Your task to perform on an android device: Open display settings Image 0: 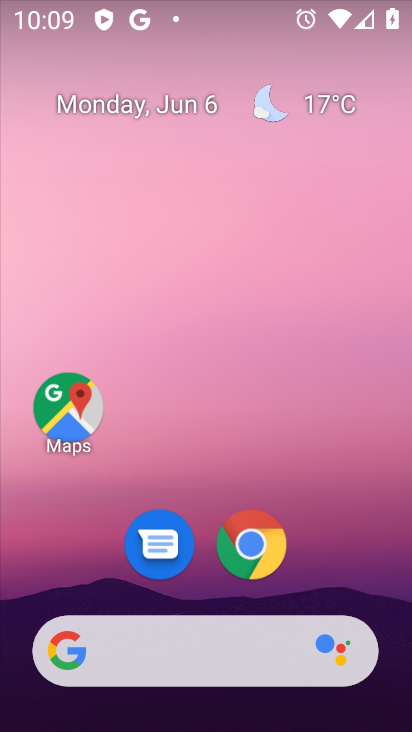
Step 0: drag from (132, 278) to (180, 101)
Your task to perform on an android device: Open display settings Image 1: 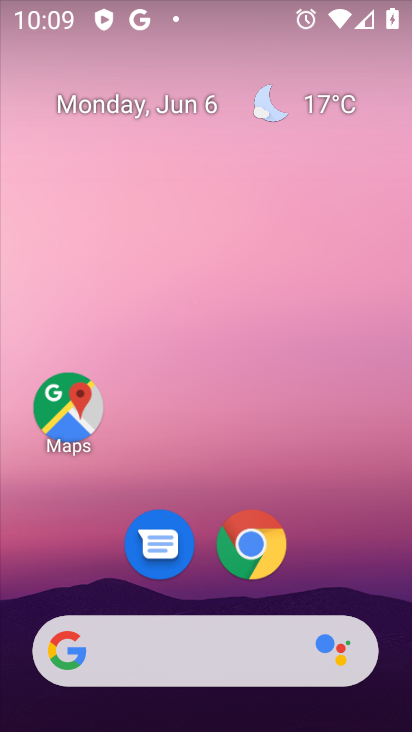
Step 1: drag from (91, 600) to (177, 164)
Your task to perform on an android device: Open display settings Image 2: 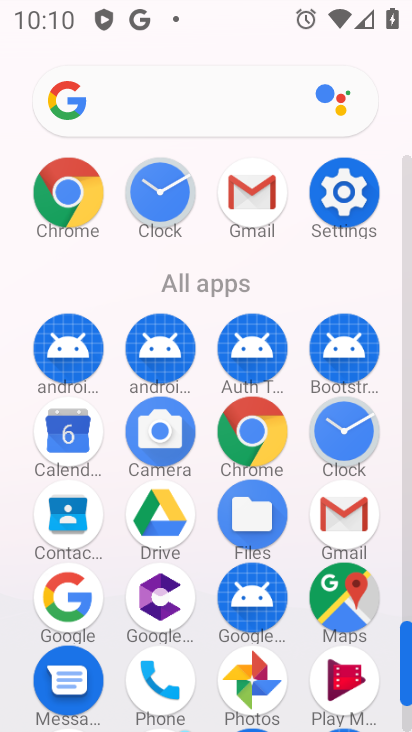
Step 2: drag from (238, 621) to (323, 245)
Your task to perform on an android device: Open display settings Image 3: 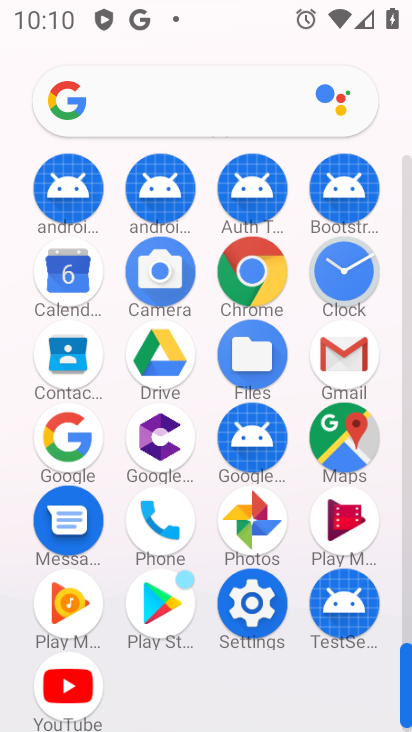
Step 3: click (254, 568)
Your task to perform on an android device: Open display settings Image 4: 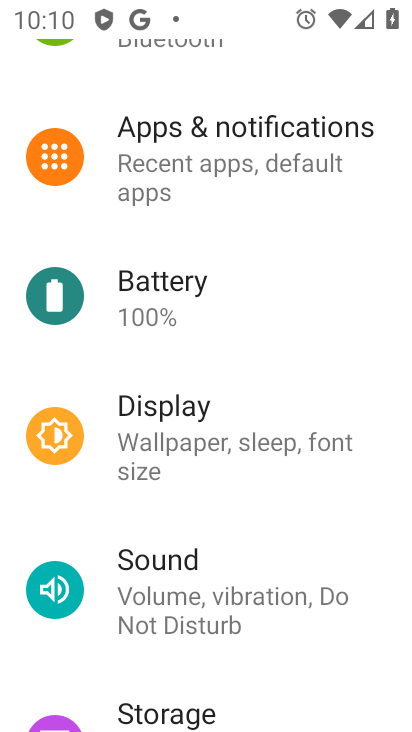
Step 4: click (211, 446)
Your task to perform on an android device: Open display settings Image 5: 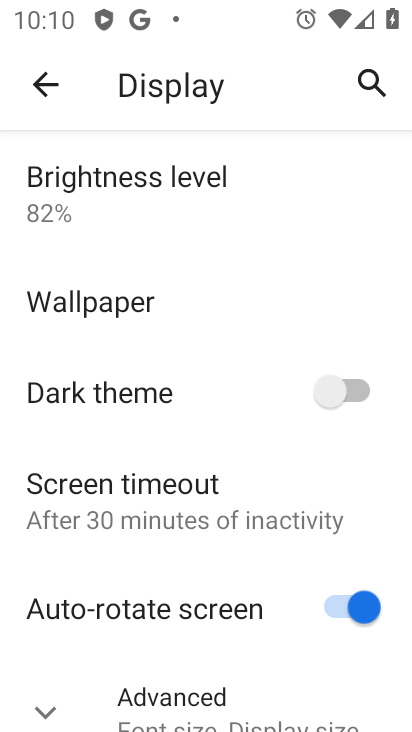
Step 5: task complete